Your task to perform on an android device: change notification settings in the gmail app Image 0: 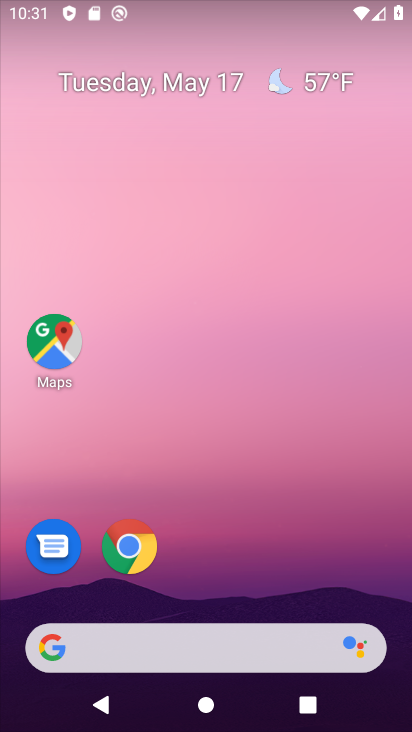
Step 0: drag from (257, 579) to (302, 111)
Your task to perform on an android device: change notification settings in the gmail app Image 1: 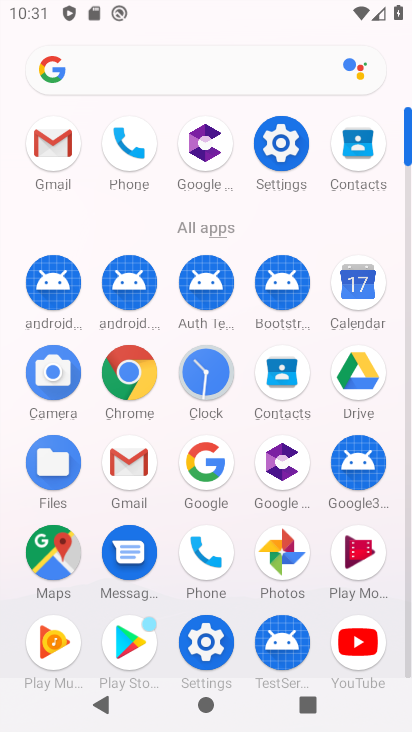
Step 1: click (291, 153)
Your task to perform on an android device: change notification settings in the gmail app Image 2: 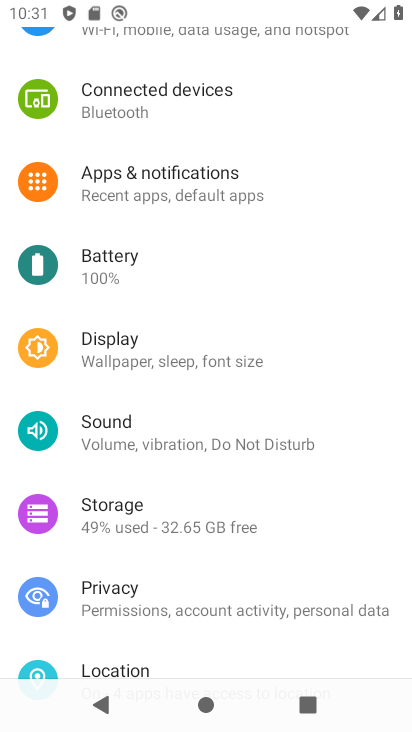
Step 2: click (250, 185)
Your task to perform on an android device: change notification settings in the gmail app Image 3: 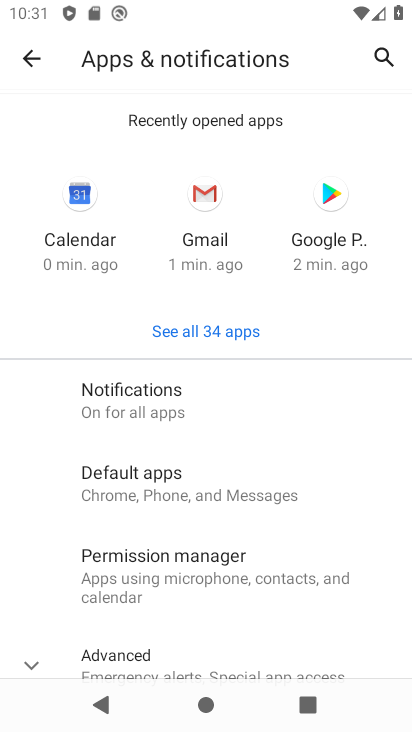
Step 3: click (196, 413)
Your task to perform on an android device: change notification settings in the gmail app Image 4: 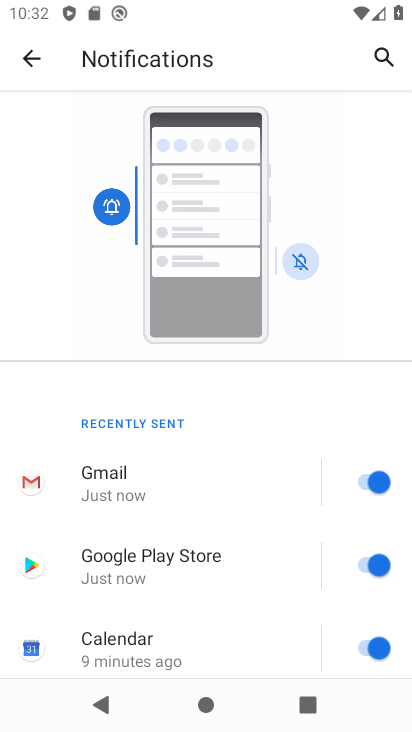
Step 4: task complete